Your task to perform on an android device: toggle notification dots Image 0: 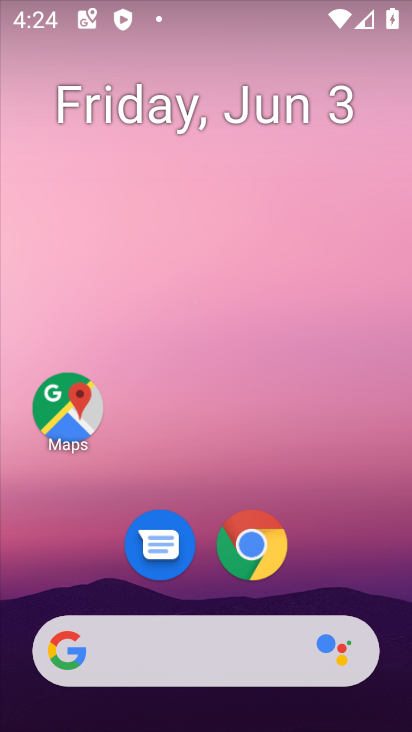
Step 0: drag from (69, 589) to (154, 233)
Your task to perform on an android device: toggle notification dots Image 1: 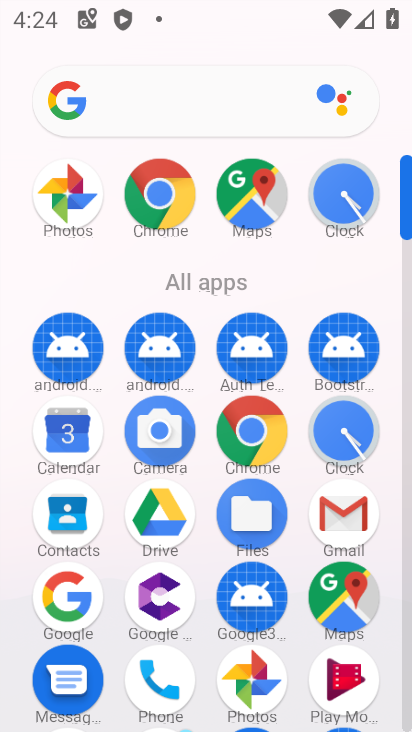
Step 1: drag from (150, 620) to (220, 363)
Your task to perform on an android device: toggle notification dots Image 2: 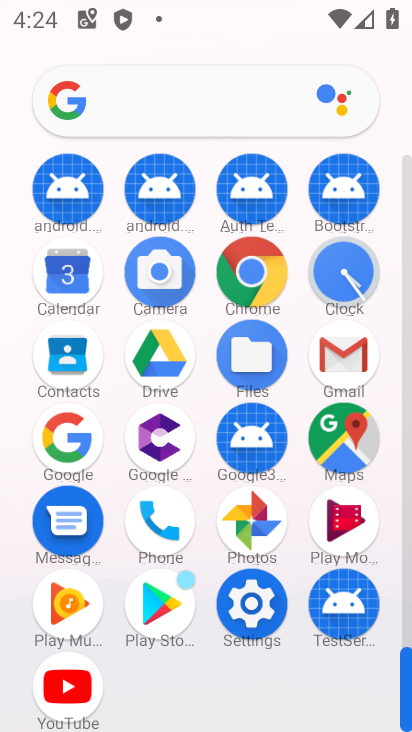
Step 2: click (242, 618)
Your task to perform on an android device: toggle notification dots Image 3: 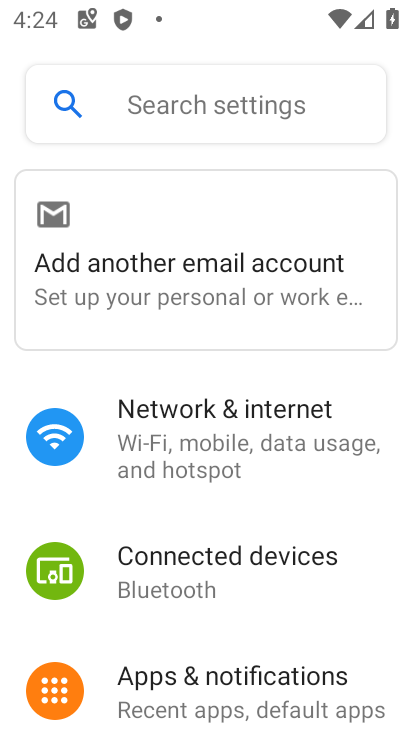
Step 3: drag from (191, 623) to (286, 392)
Your task to perform on an android device: toggle notification dots Image 4: 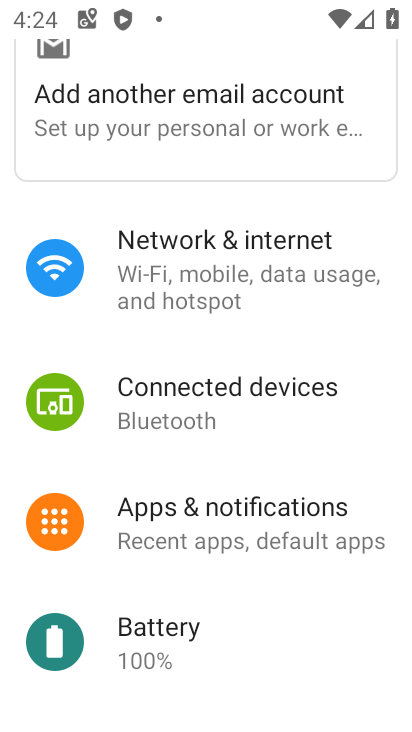
Step 4: click (305, 534)
Your task to perform on an android device: toggle notification dots Image 5: 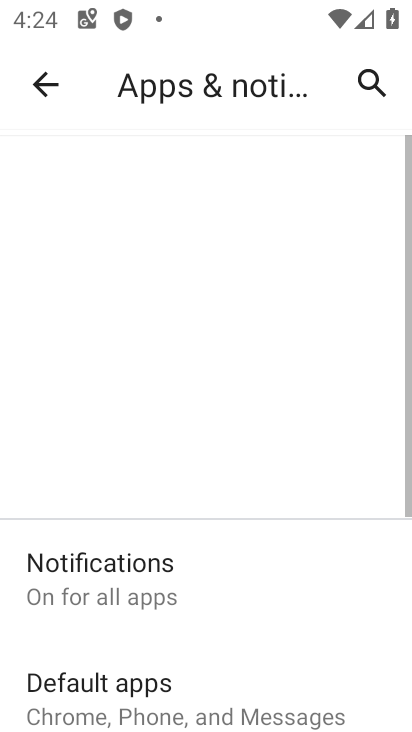
Step 5: drag from (136, 629) to (262, 234)
Your task to perform on an android device: toggle notification dots Image 6: 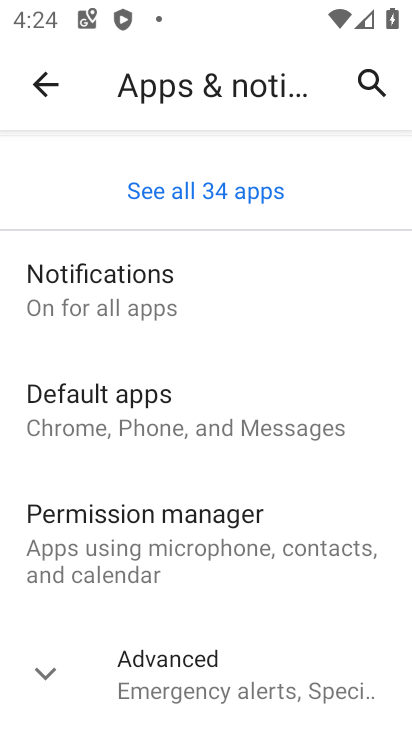
Step 6: click (251, 338)
Your task to perform on an android device: toggle notification dots Image 7: 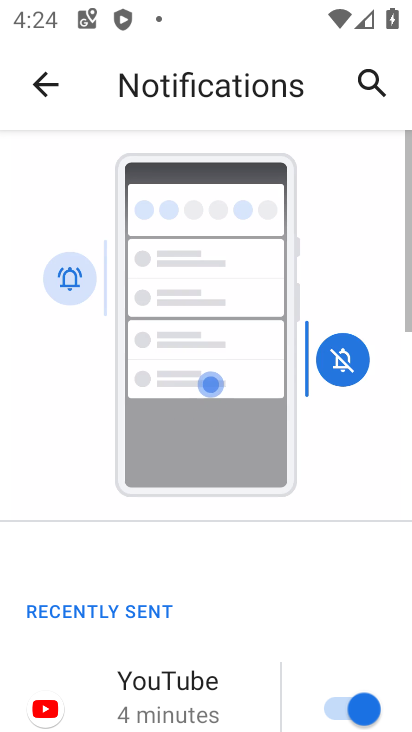
Step 7: drag from (230, 588) to (373, 154)
Your task to perform on an android device: toggle notification dots Image 8: 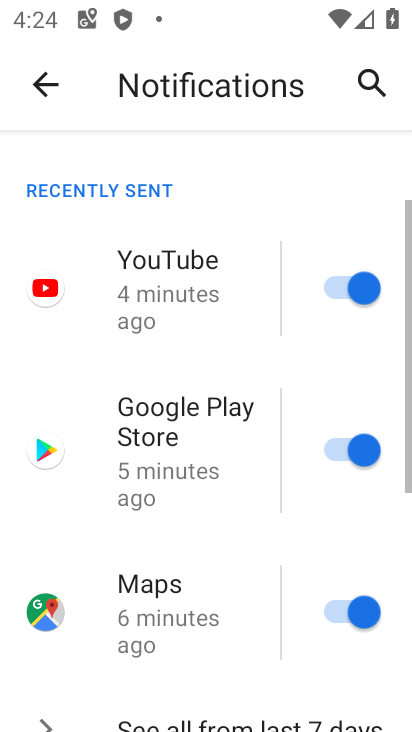
Step 8: drag from (232, 629) to (388, 191)
Your task to perform on an android device: toggle notification dots Image 9: 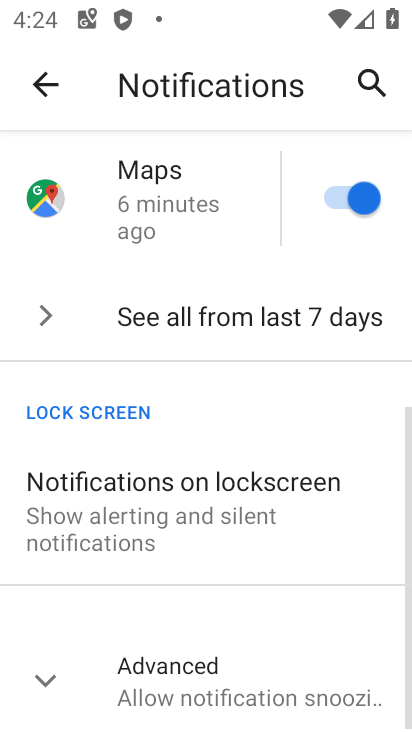
Step 9: click (145, 677)
Your task to perform on an android device: toggle notification dots Image 10: 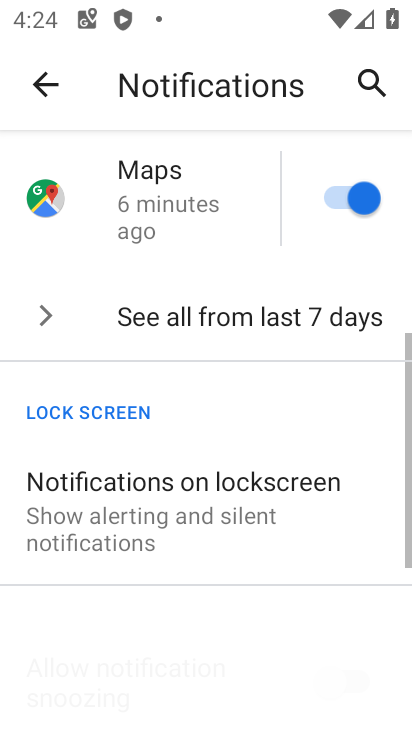
Step 10: drag from (146, 673) to (305, 275)
Your task to perform on an android device: toggle notification dots Image 11: 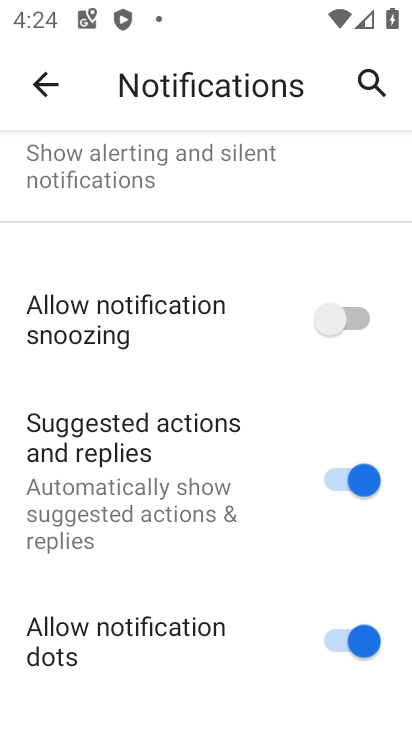
Step 11: click (344, 648)
Your task to perform on an android device: toggle notification dots Image 12: 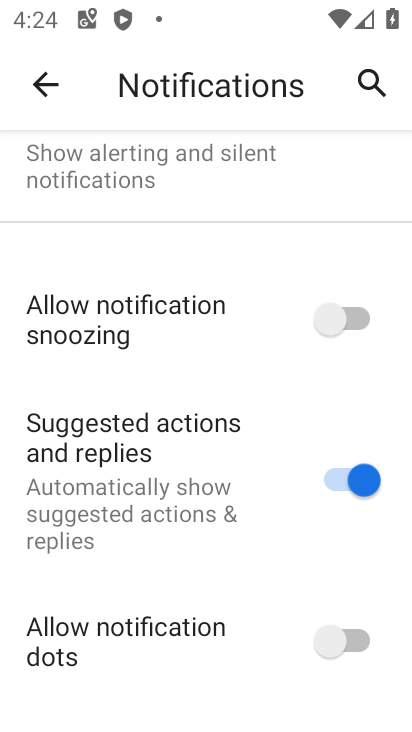
Step 12: task complete